Your task to perform on an android device: open sync settings in chrome Image 0: 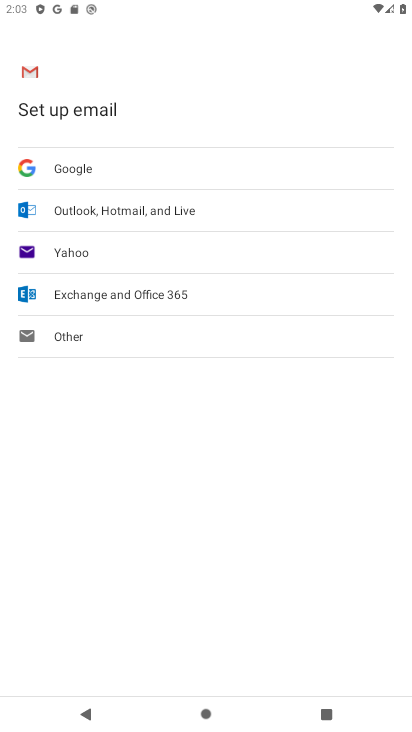
Step 0: press home button
Your task to perform on an android device: open sync settings in chrome Image 1: 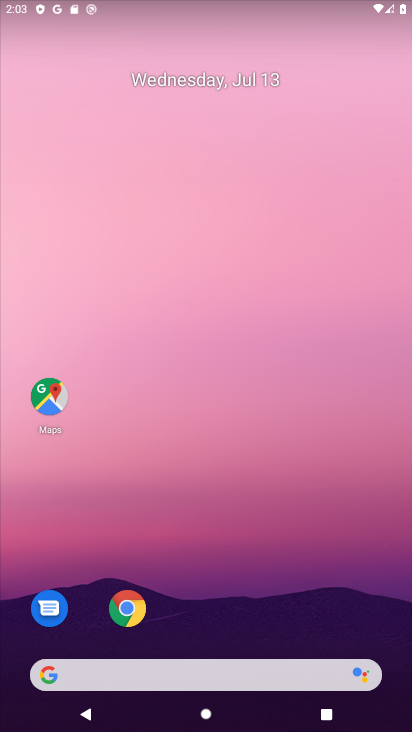
Step 1: click (125, 607)
Your task to perform on an android device: open sync settings in chrome Image 2: 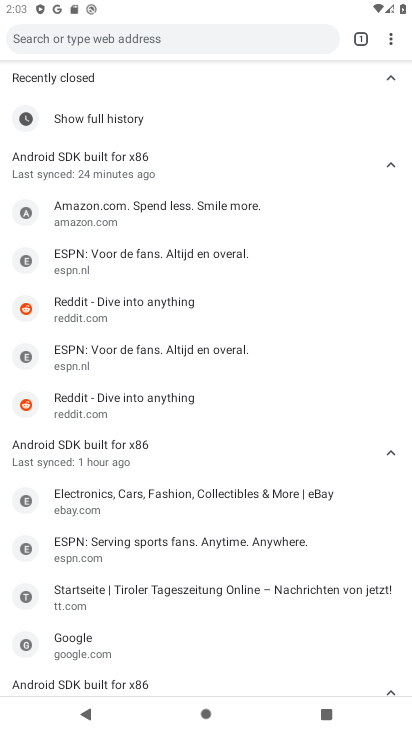
Step 2: click (400, 44)
Your task to perform on an android device: open sync settings in chrome Image 3: 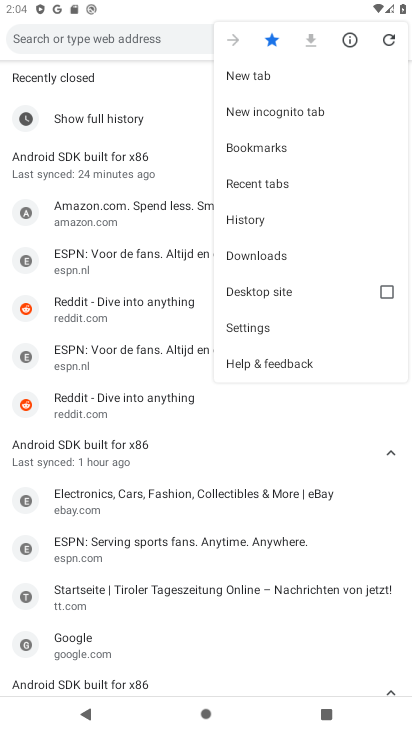
Step 3: click (280, 332)
Your task to perform on an android device: open sync settings in chrome Image 4: 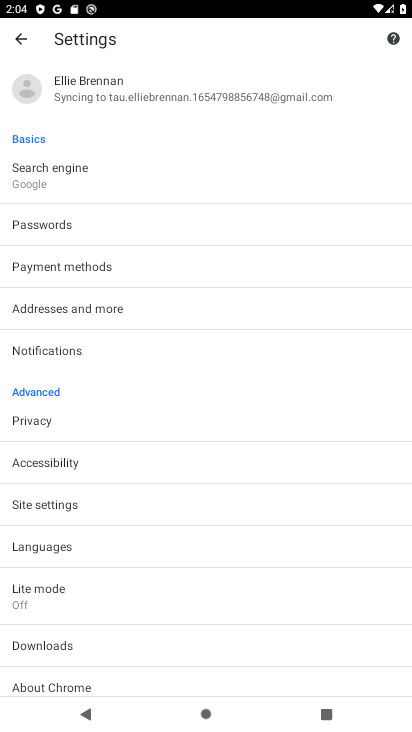
Step 4: click (91, 167)
Your task to perform on an android device: open sync settings in chrome Image 5: 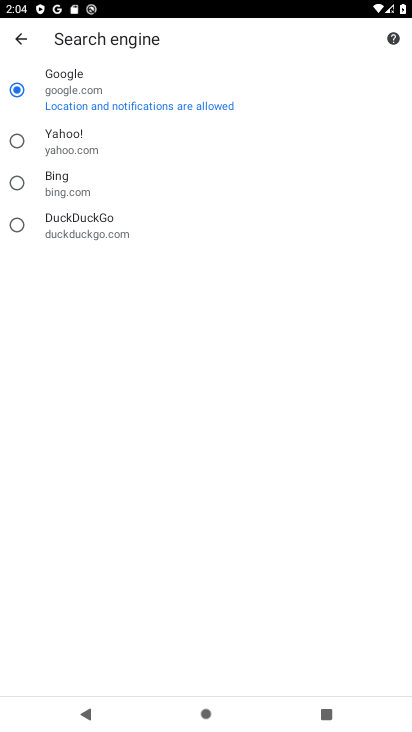
Step 5: click (15, 40)
Your task to perform on an android device: open sync settings in chrome Image 6: 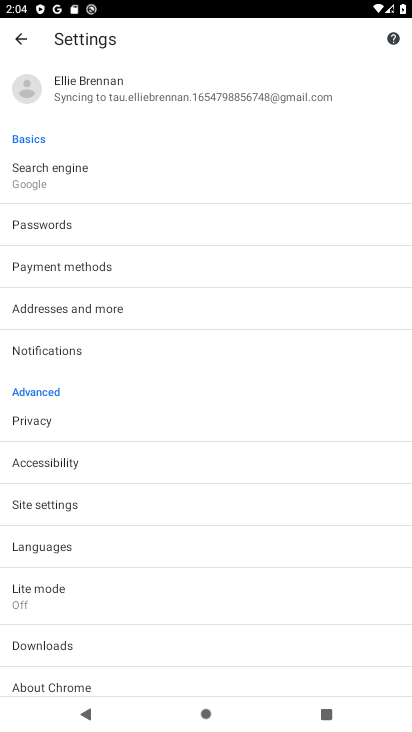
Step 6: click (111, 83)
Your task to perform on an android device: open sync settings in chrome Image 7: 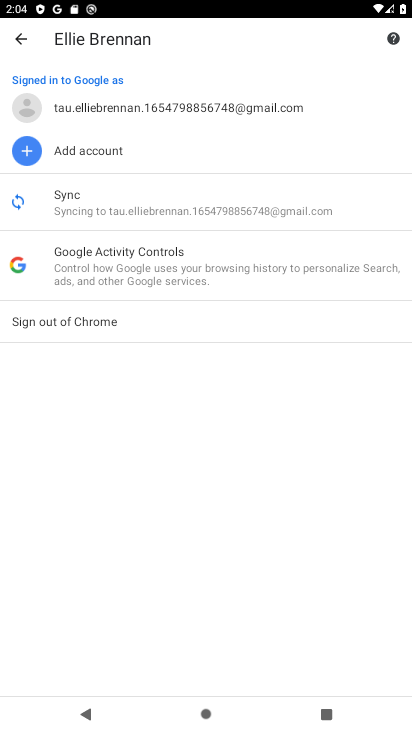
Step 7: click (111, 83)
Your task to perform on an android device: open sync settings in chrome Image 8: 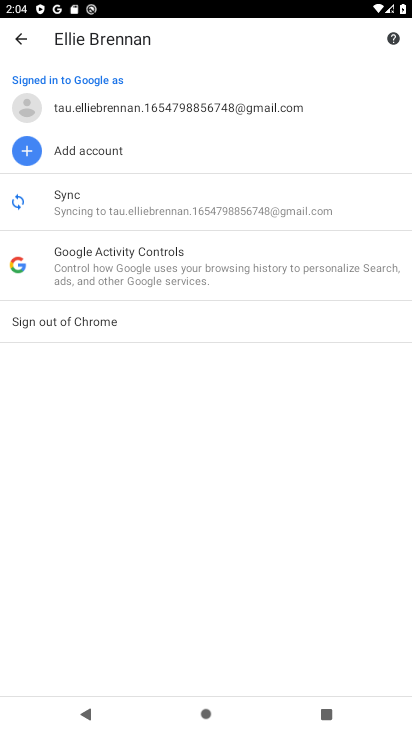
Step 8: click (101, 218)
Your task to perform on an android device: open sync settings in chrome Image 9: 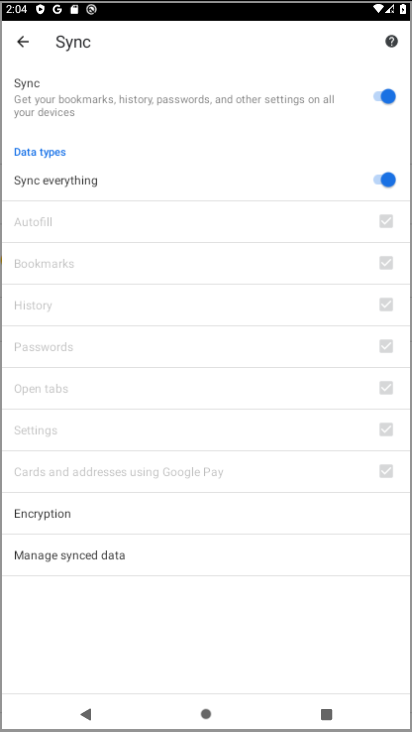
Step 9: click (101, 218)
Your task to perform on an android device: open sync settings in chrome Image 10: 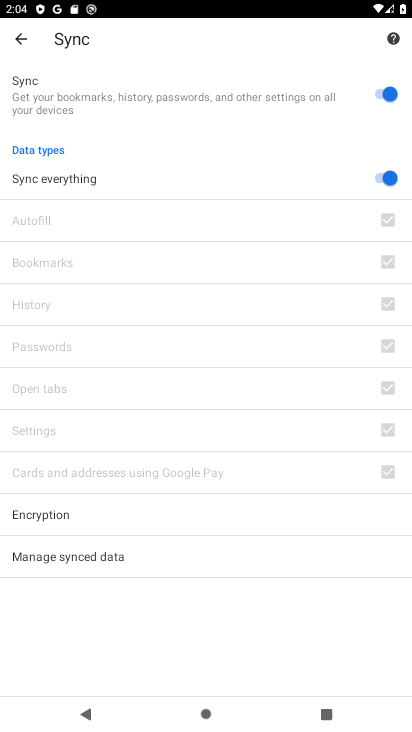
Step 10: task complete